Your task to perform on an android device: turn off translation in the chrome app Image 0: 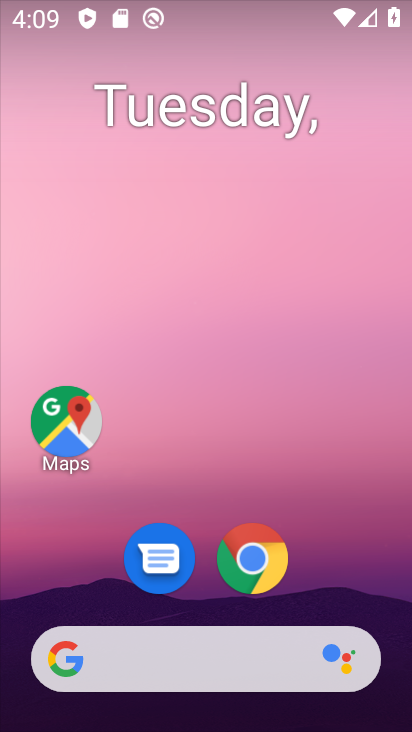
Step 0: drag from (381, 600) to (272, 231)
Your task to perform on an android device: turn off translation in the chrome app Image 1: 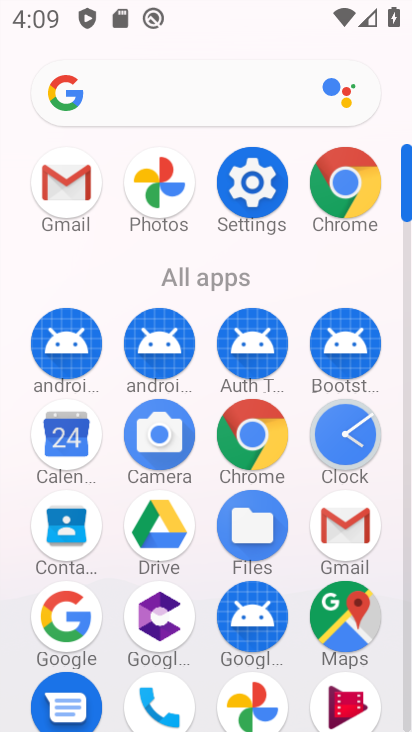
Step 1: click (351, 164)
Your task to perform on an android device: turn off translation in the chrome app Image 2: 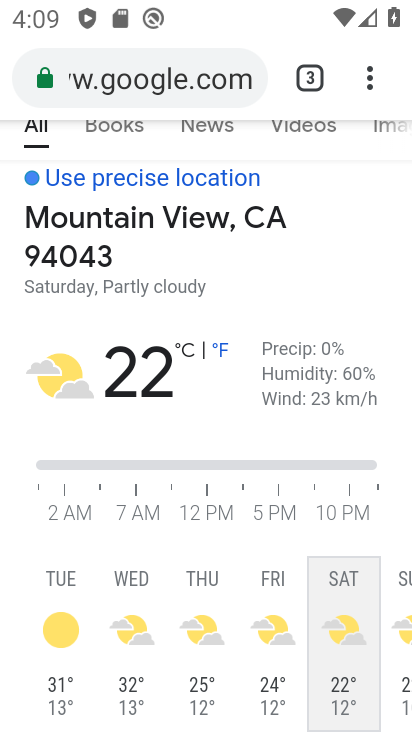
Step 2: click (373, 86)
Your task to perform on an android device: turn off translation in the chrome app Image 3: 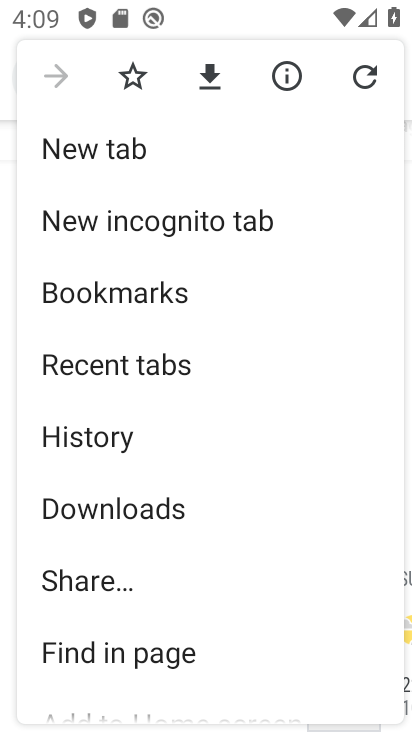
Step 3: drag from (220, 686) to (178, 265)
Your task to perform on an android device: turn off translation in the chrome app Image 4: 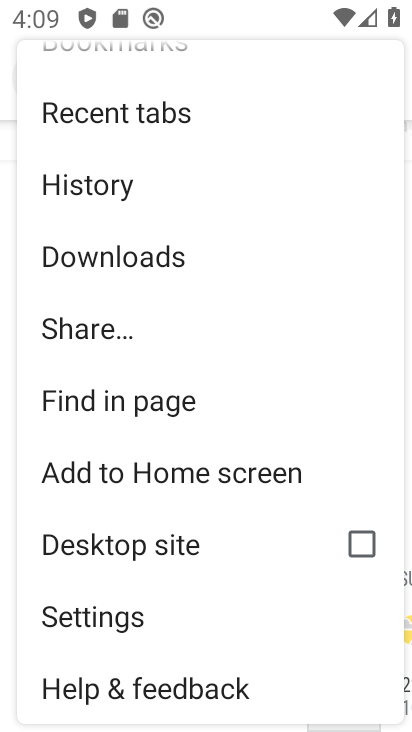
Step 4: click (172, 631)
Your task to perform on an android device: turn off translation in the chrome app Image 5: 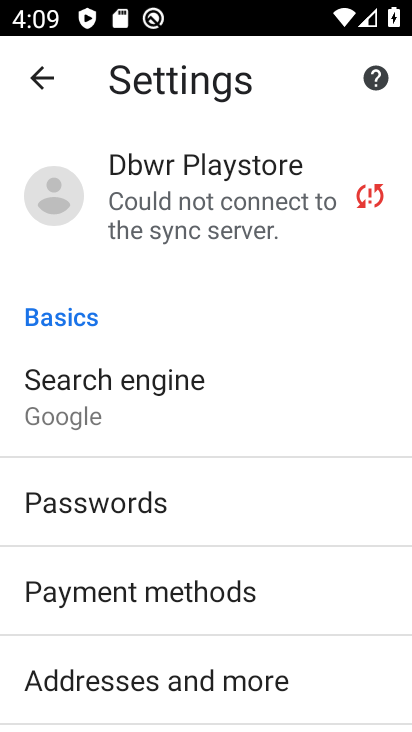
Step 5: drag from (257, 656) to (226, 285)
Your task to perform on an android device: turn off translation in the chrome app Image 6: 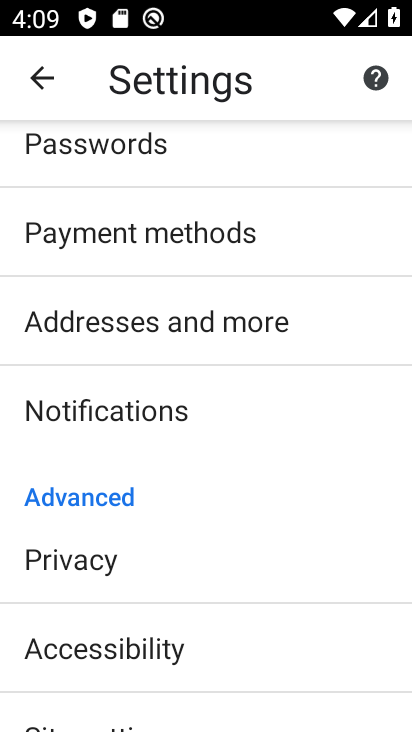
Step 6: drag from (259, 706) to (210, 361)
Your task to perform on an android device: turn off translation in the chrome app Image 7: 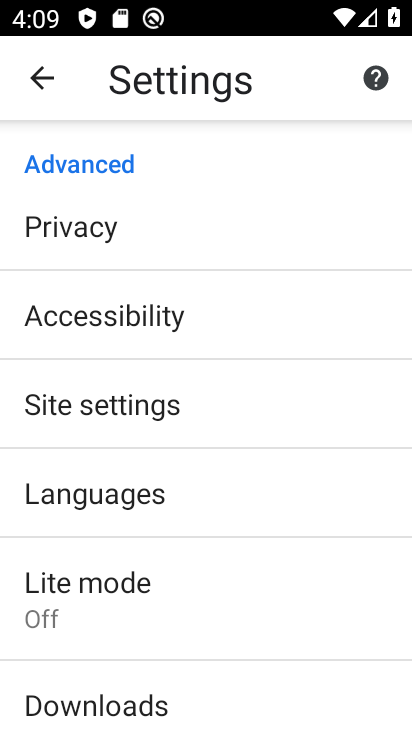
Step 7: click (209, 484)
Your task to perform on an android device: turn off translation in the chrome app Image 8: 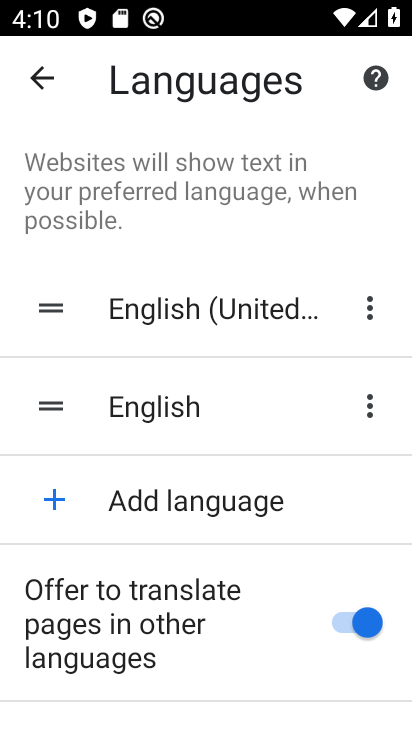
Step 8: click (344, 631)
Your task to perform on an android device: turn off translation in the chrome app Image 9: 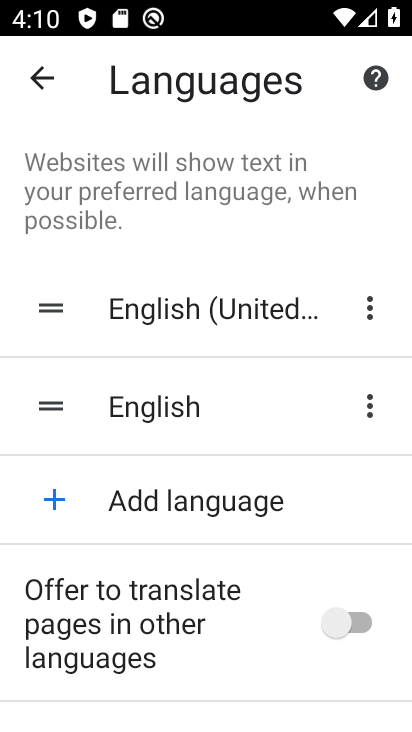
Step 9: task complete